Your task to perform on an android device: turn on translation in the chrome app Image 0: 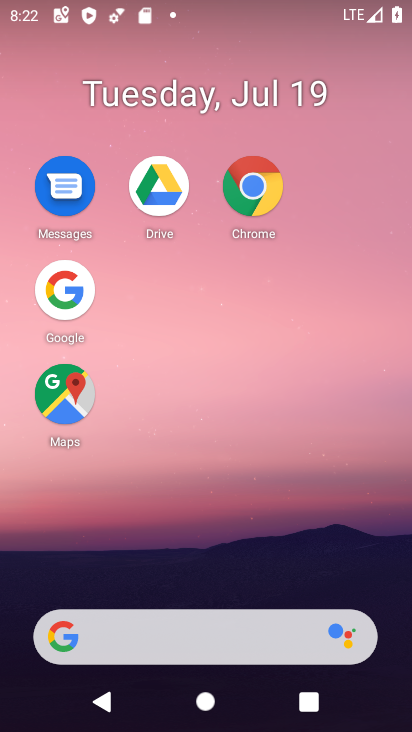
Step 0: drag from (227, 605) to (335, 6)
Your task to perform on an android device: turn on translation in the chrome app Image 1: 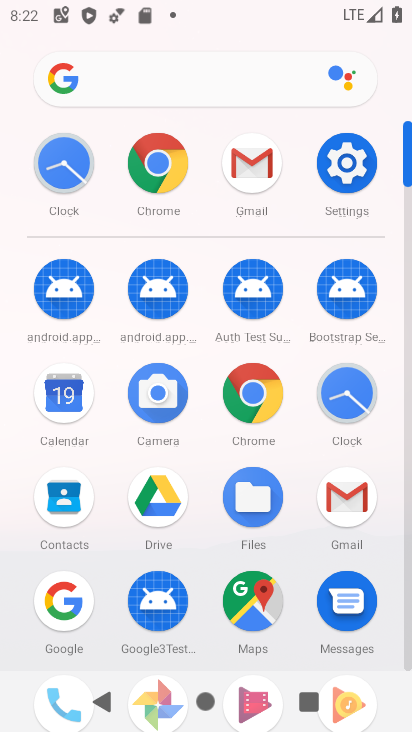
Step 1: click (269, 413)
Your task to perform on an android device: turn on translation in the chrome app Image 2: 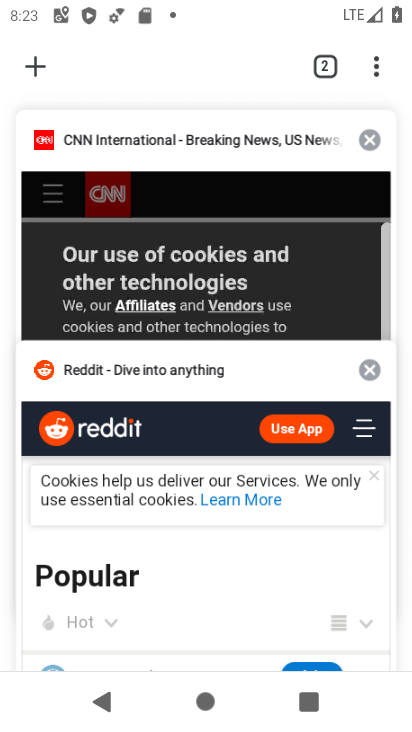
Step 2: click (373, 80)
Your task to perform on an android device: turn on translation in the chrome app Image 3: 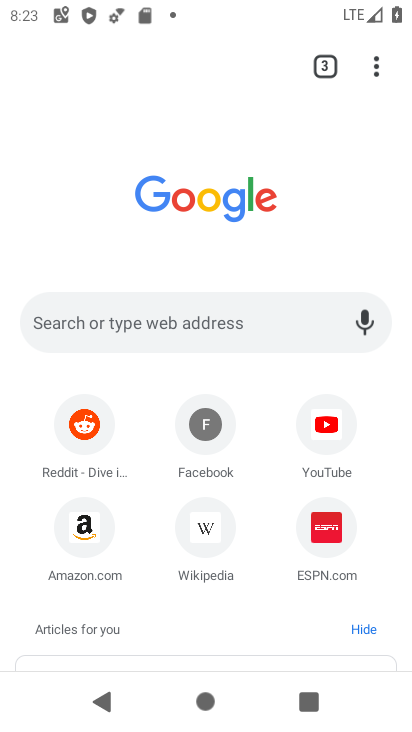
Step 3: click (374, 78)
Your task to perform on an android device: turn on translation in the chrome app Image 4: 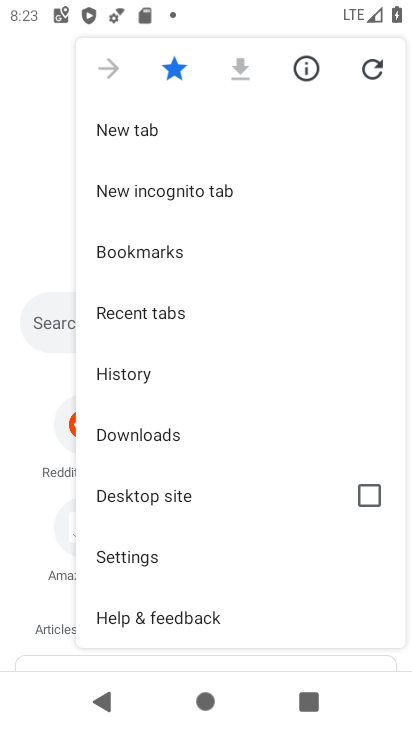
Step 4: click (113, 559)
Your task to perform on an android device: turn on translation in the chrome app Image 5: 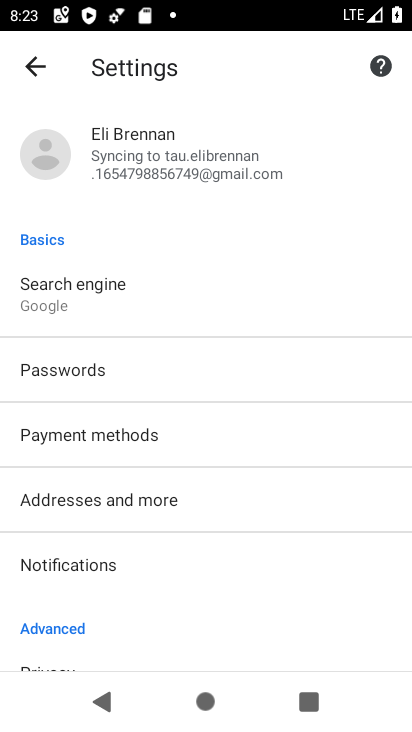
Step 5: drag from (113, 559) to (73, 63)
Your task to perform on an android device: turn on translation in the chrome app Image 6: 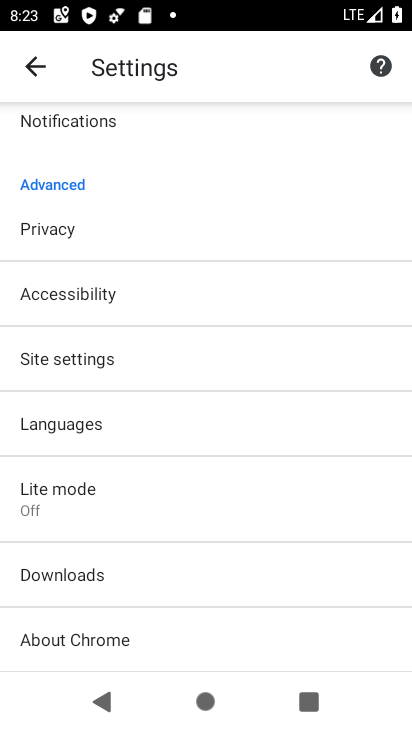
Step 6: click (75, 436)
Your task to perform on an android device: turn on translation in the chrome app Image 7: 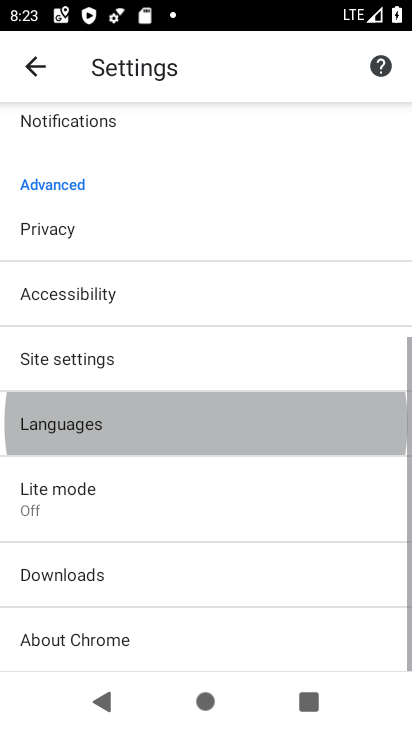
Step 7: click (75, 436)
Your task to perform on an android device: turn on translation in the chrome app Image 8: 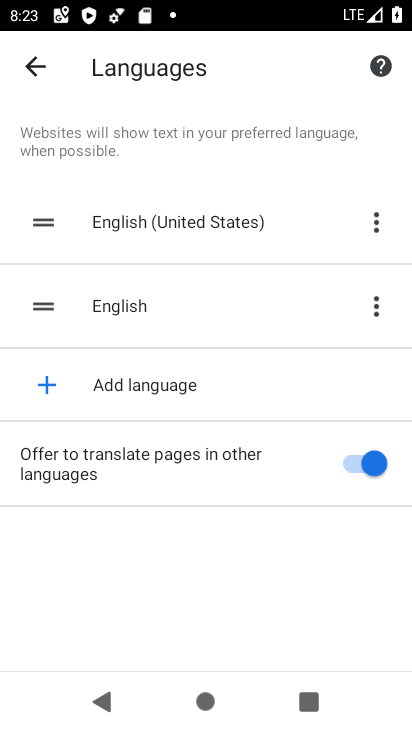
Step 8: task complete